Your task to perform on an android device: change keyboard looks Image 0: 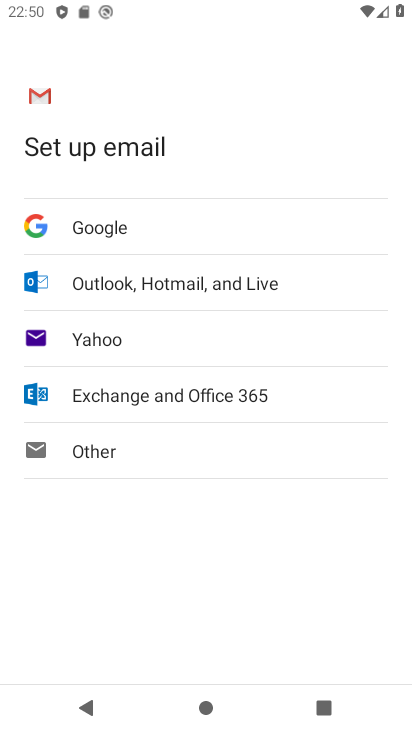
Step 0: press back button
Your task to perform on an android device: change keyboard looks Image 1: 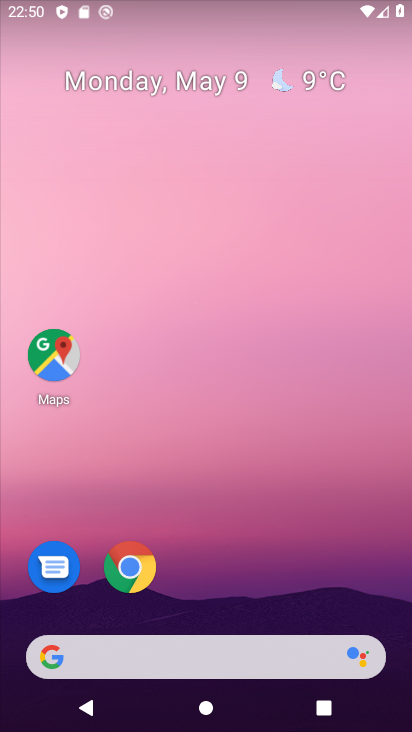
Step 1: drag from (264, 602) to (182, 90)
Your task to perform on an android device: change keyboard looks Image 2: 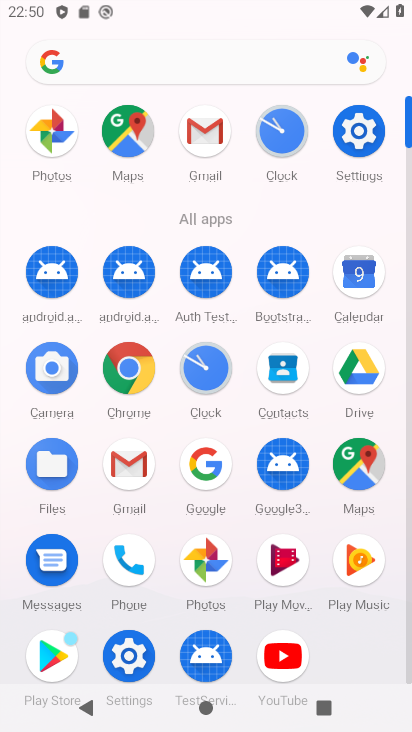
Step 2: click (359, 132)
Your task to perform on an android device: change keyboard looks Image 3: 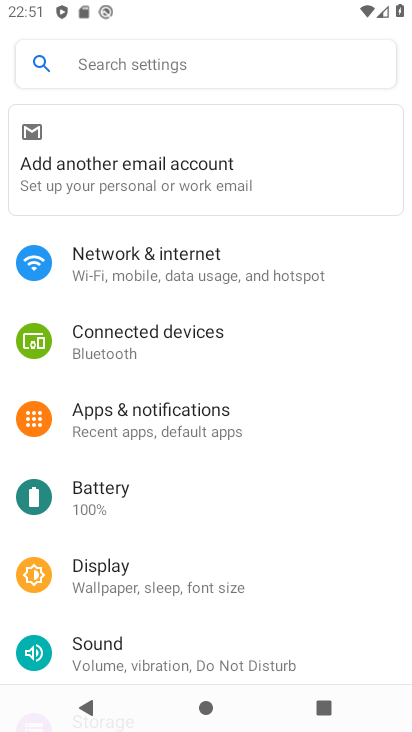
Step 3: drag from (158, 461) to (176, 352)
Your task to perform on an android device: change keyboard looks Image 4: 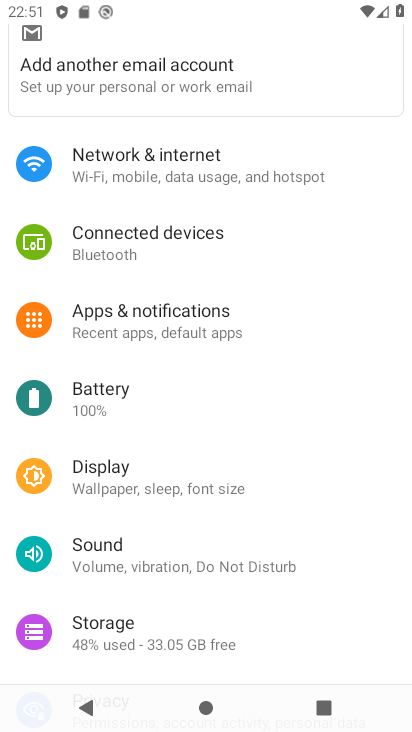
Step 4: drag from (180, 435) to (219, 293)
Your task to perform on an android device: change keyboard looks Image 5: 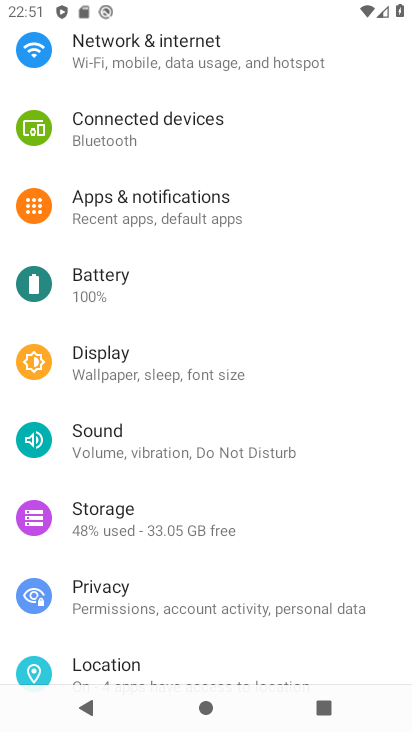
Step 5: drag from (162, 428) to (235, 268)
Your task to perform on an android device: change keyboard looks Image 6: 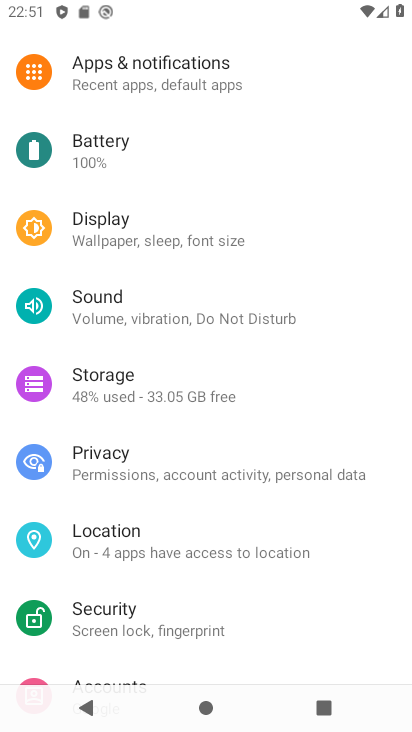
Step 6: drag from (153, 523) to (199, 315)
Your task to perform on an android device: change keyboard looks Image 7: 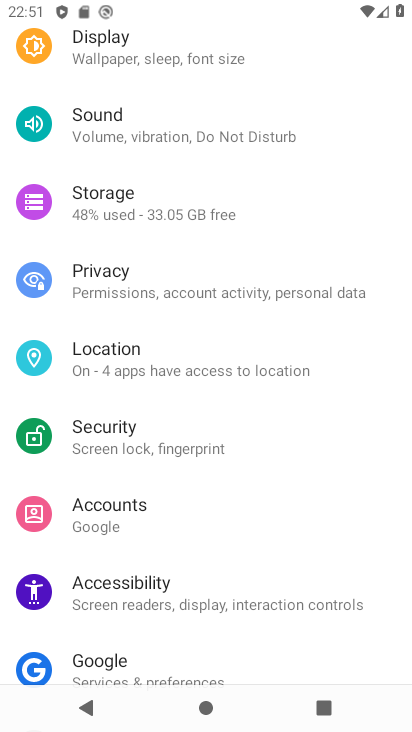
Step 7: drag from (180, 546) to (218, 358)
Your task to perform on an android device: change keyboard looks Image 8: 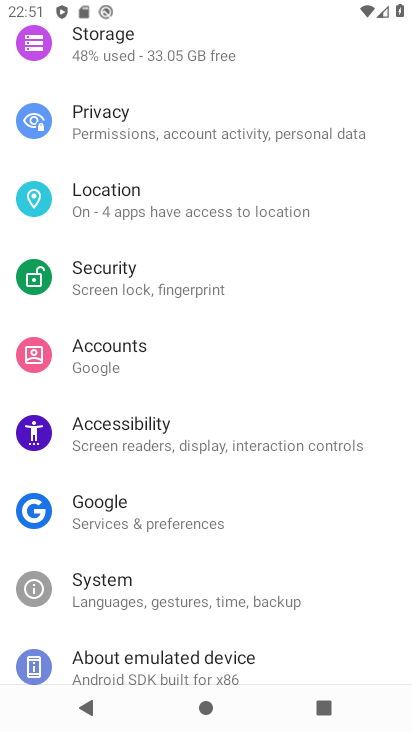
Step 8: click (99, 583)
Your task to perform on an android device: change keyboard looks Image 9: 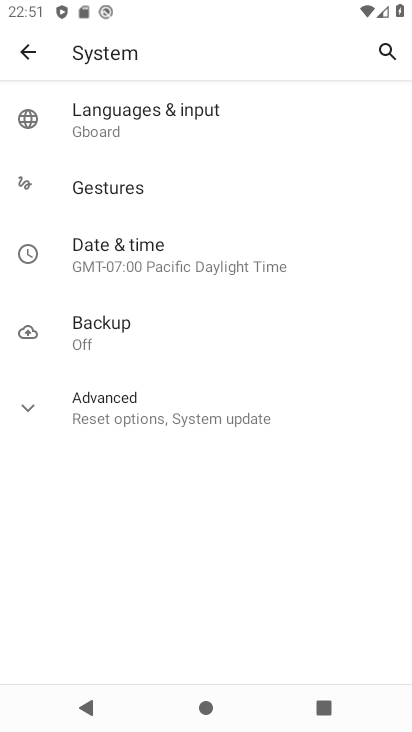
Step 9: click (102, 117)
Your task to perform on an android device: change keyboard looks Image 10: 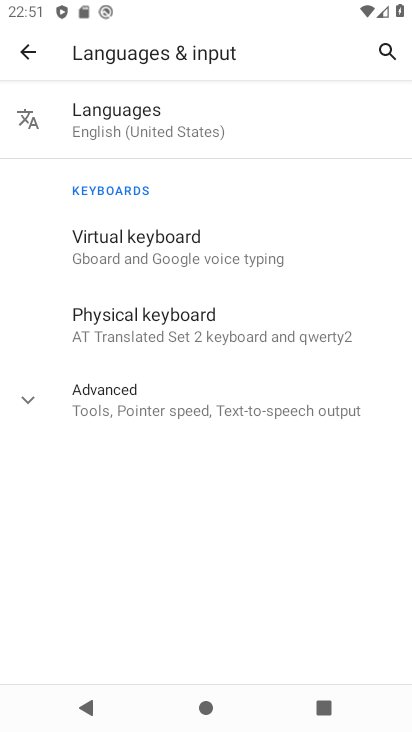
Step 10: click (143, 237)
Your task to perform on an android device: change keyboard looks Image 11: 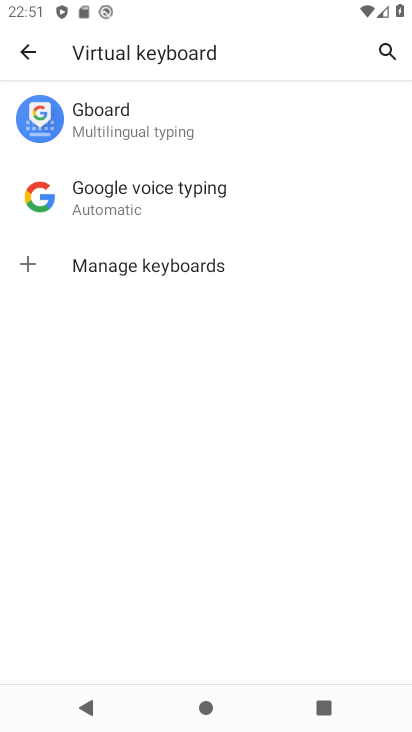
Step 11: click (93, 110)
Your task to perform on an android device: change keyboard looks Image 12: 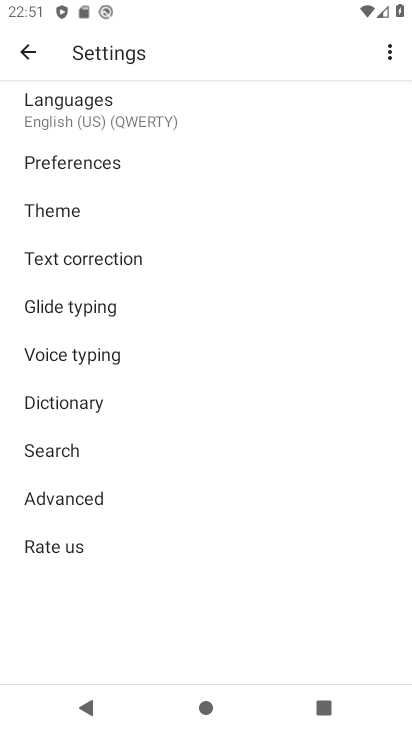
Step 12: click (67, 210)
Your task to perform on an android device: change keyboard looks Image 13: 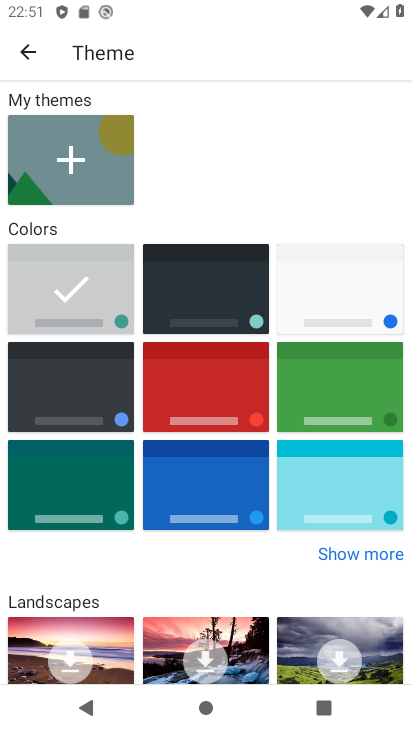
Step 13: click (90, 462)
Your task to perform on an android device: change keyboard looks Image 14: 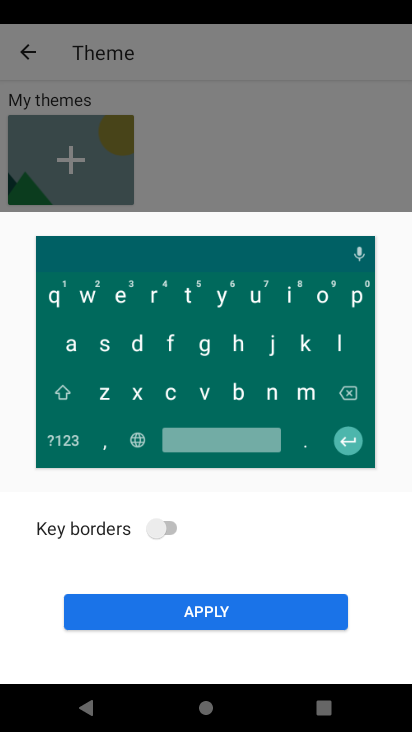
Step 14: click (167, 527)
Your task to perform on an android device: change keyboard looks Image 15: 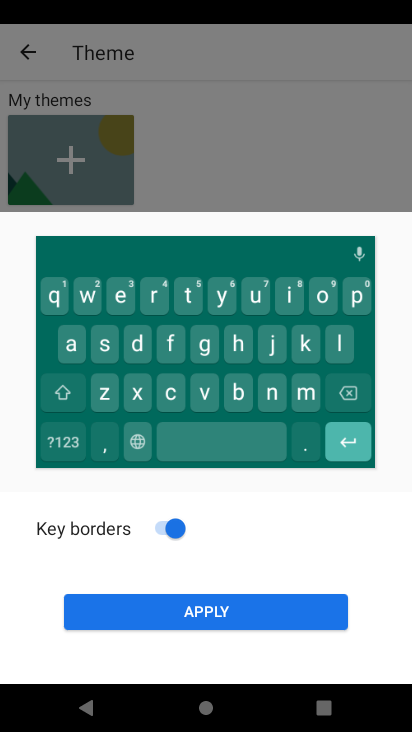
Step 15: click (214, 610)
Your task to perform on an android device: change keyboard looks Image 16: 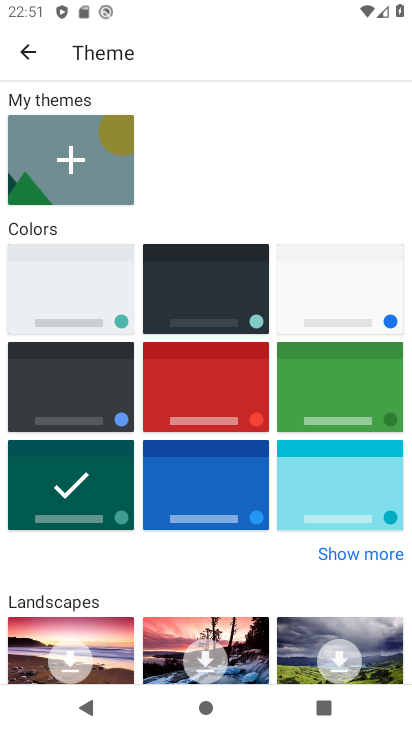
Step 16: task complete